Your task to perform on an android device: turn notification dots on Image 0: 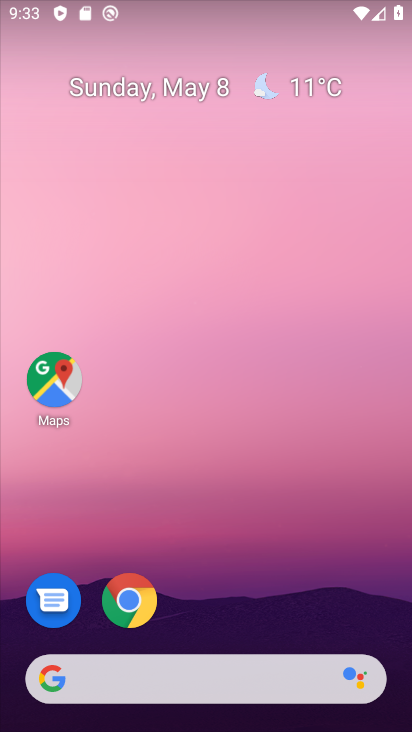
Step 0: drag from (232, 628) to (294, 60)
Your task to perform on an android device: turn notification dots on Image 1: 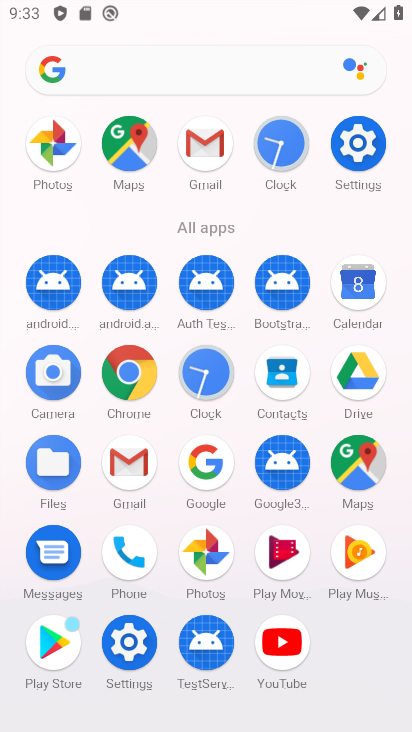
Step 1: click (356, 164)
Your task to perform on an android device: turn notification dots on Image 2: 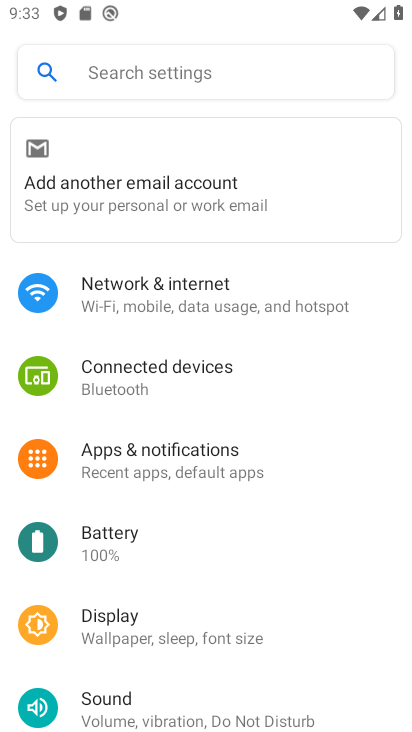
Step 2: click (199, 479)
Your task to perform on an android device: turn notification dots on Image 3: 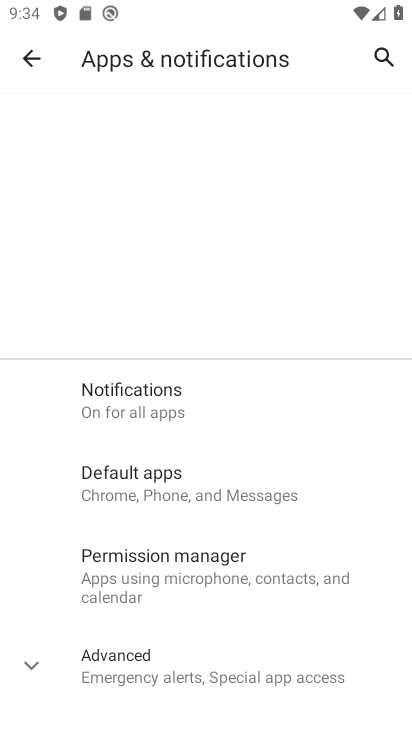
Step 3: click (158, 396)
Your task to perform on an android device: turn notification dots on Image 4: 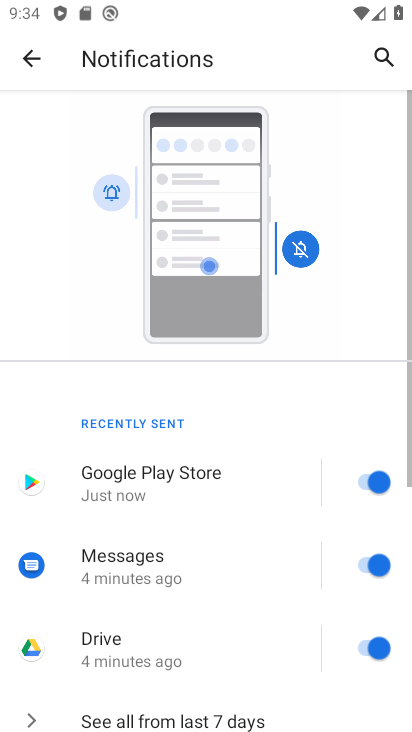
Step 4: drag from (233, 609) to (278, 172)
Your task to perform on an android device: turn notification dots on Image 5: 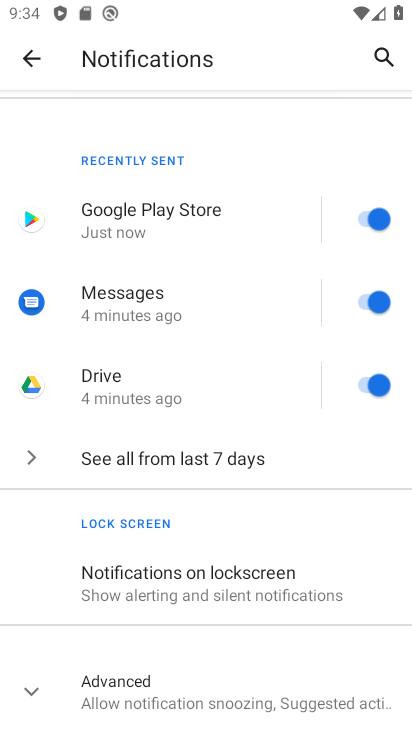
Step 5: click (157, 682)
Your task to perform on an android device: turn notification dots on Image 6: 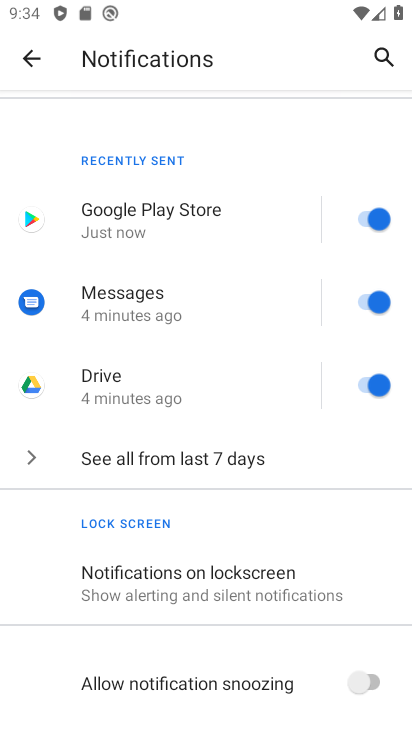
Step 6: task complete